Your task to perform on an android device: toggle location history Image 0: 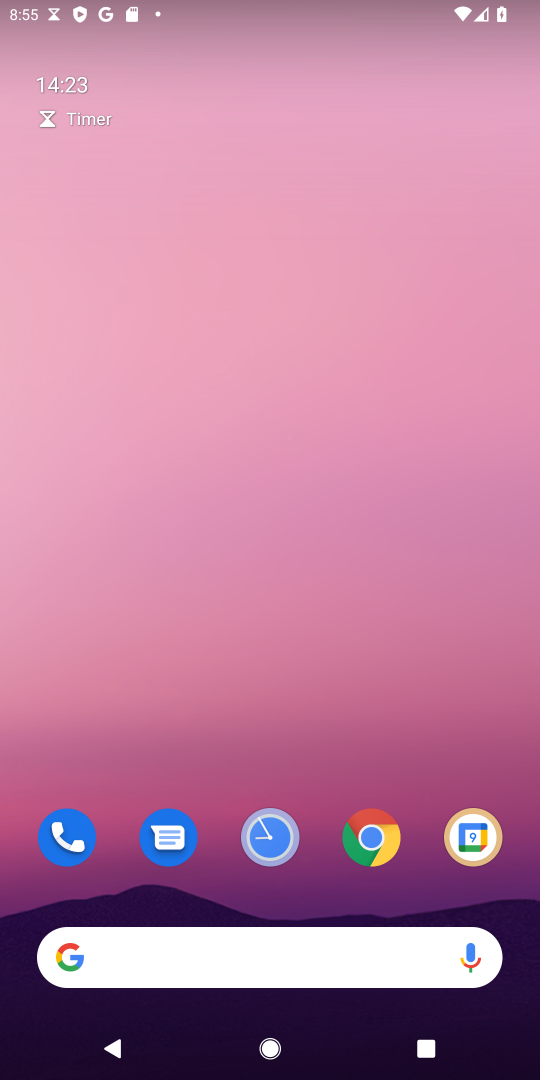
Step 0: drag from (311, 602) to (306, 131)
Your task to perform on an android device: toggle location history Image 1: 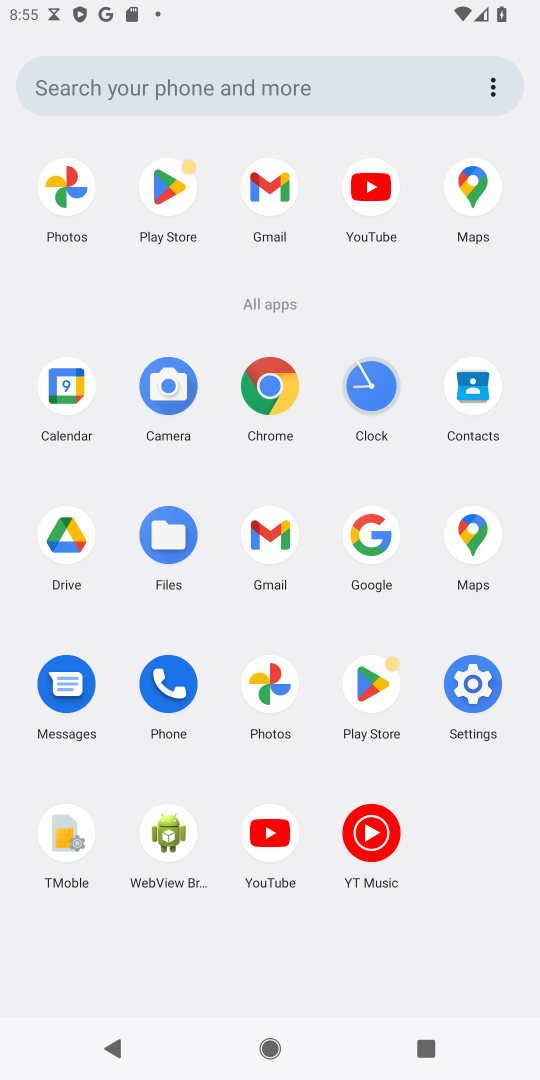
Step 1: click (475, 691)
Your task to perform on an android device: toggle location history Image 2: 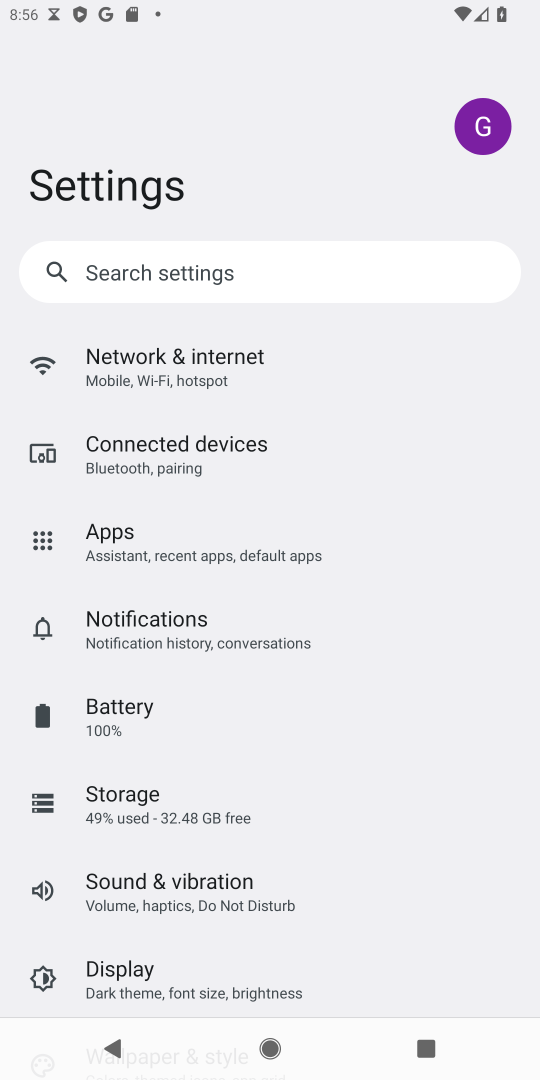
Step 2: drag from (133, 865) to (145, 515)
Your task to perform on an android device: toggle location history Image 3: 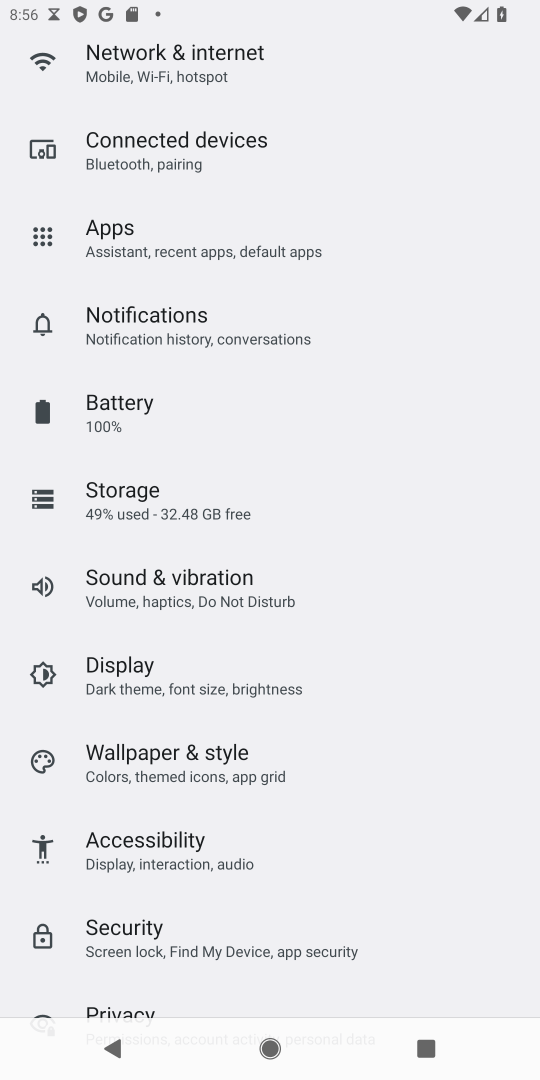
Step 3: drag from (159, 923) to (159, 693)
Your task to perform on an android device: toggle location history Image 4: 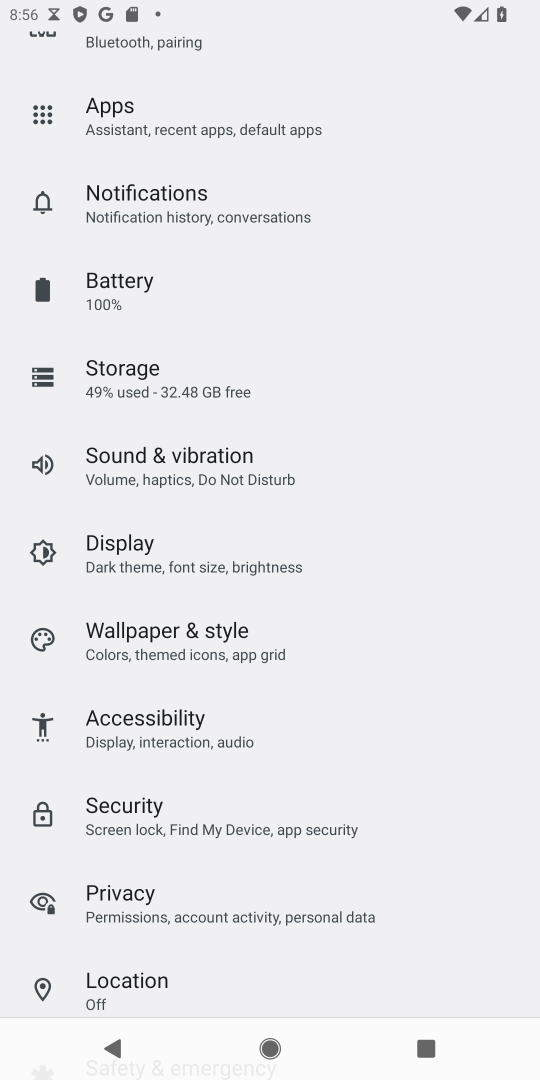
Step 4: click (132, 974)
Your task to perform on an android device: toggle location history Image 5: 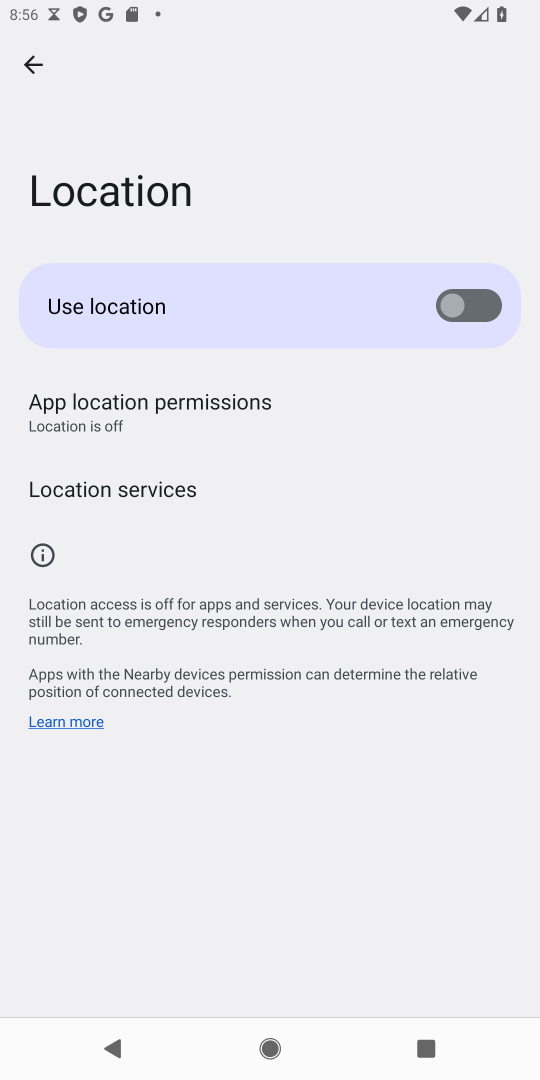
Step 5: click (132, 485)
Your task to perform on an android device: toggle location history Image 6: 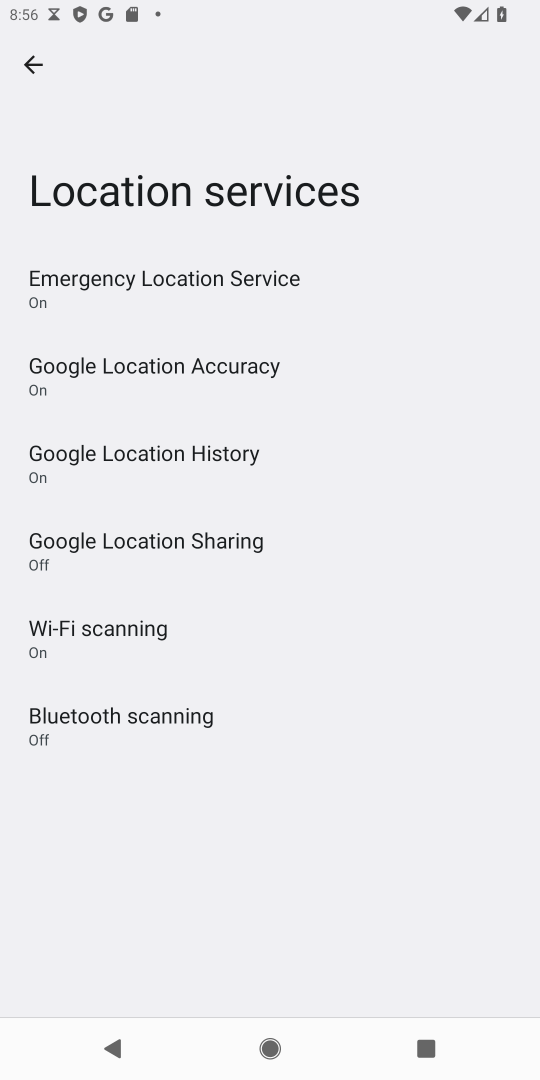
Step 6: click (166, 461)
Your task to perform on an android device: toggle location history Image 7: 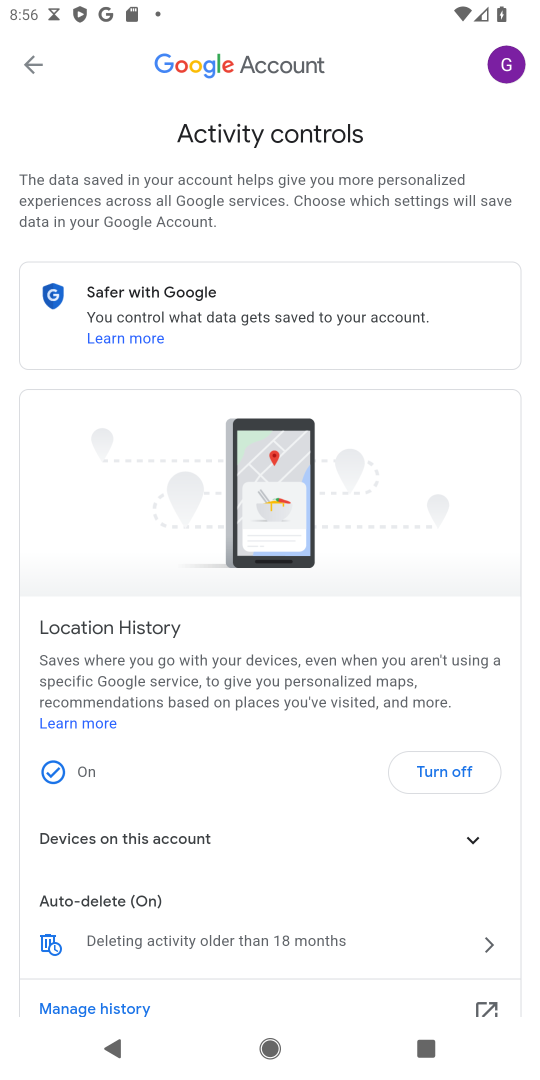
Step 7: drag from (322, 932) to (308, 683)
Your task to perform on an android device: toggle location history Image 8: 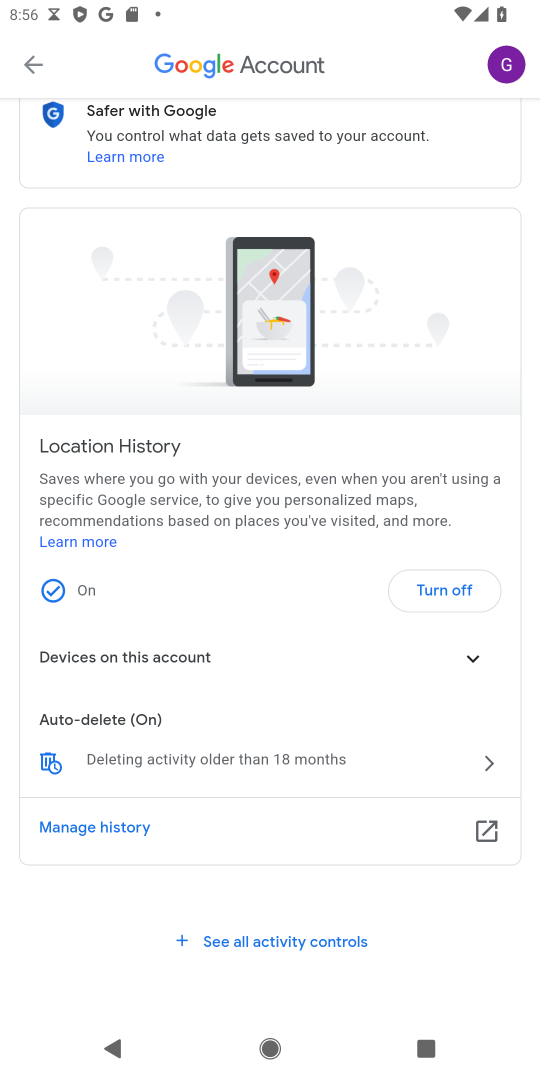
Step 8: click (446, 595)
Your task to perform on an android device: toggle location history Image 9: 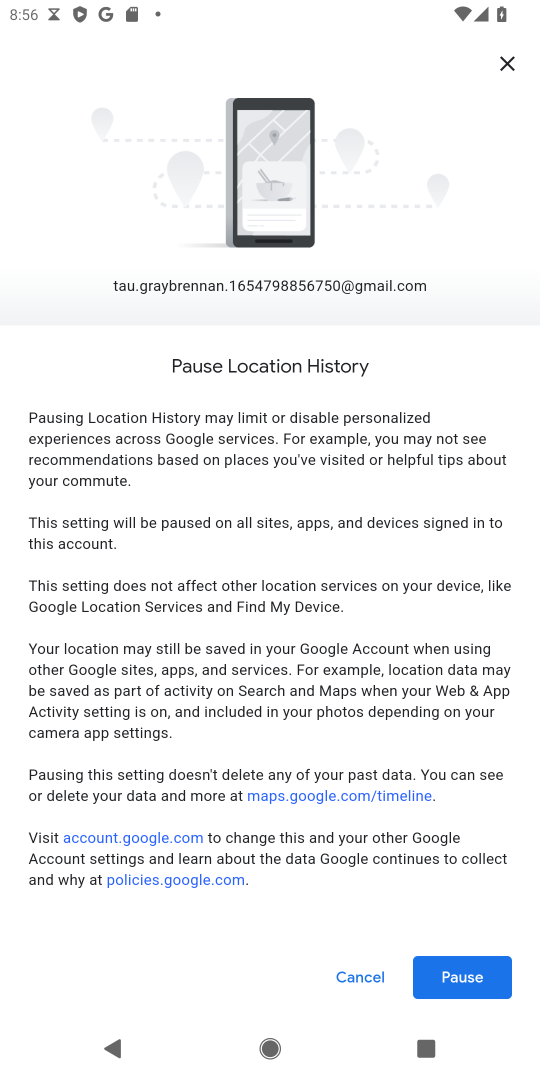
Step 9: click (475, 979)
Your task to perform on an android device: toggle location history Image 10: 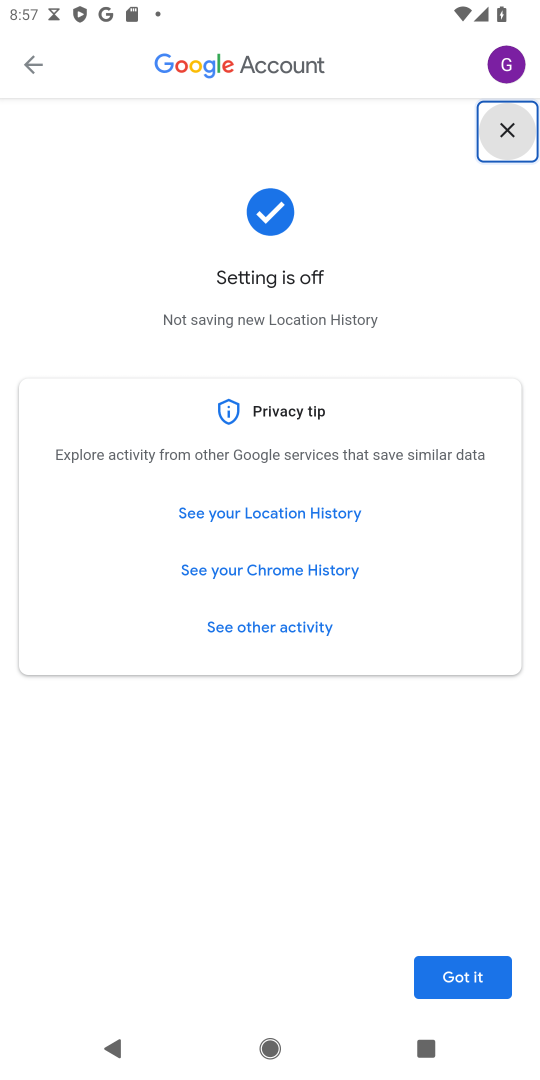
Step 10: task complete